Your task to perform on an android device: Open ESPN.com Image 0: 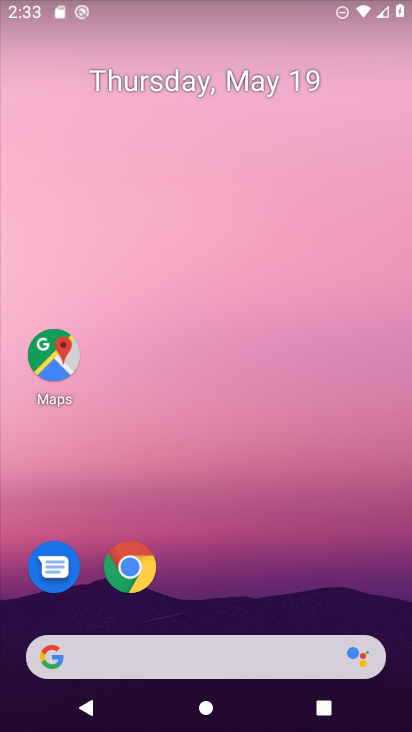
Step 0: click (279, 651)
Your task to perform on an android device: Open ESPN.com Image 1: 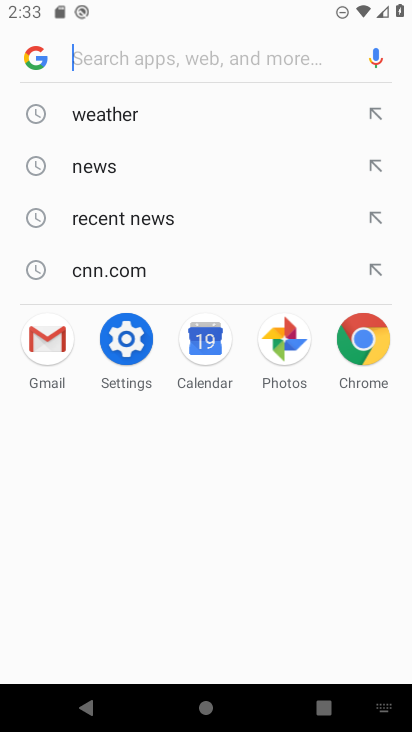
Step 1: type "espn.com"
Your task to perform on an android device: Open ESPN.com Image 2: 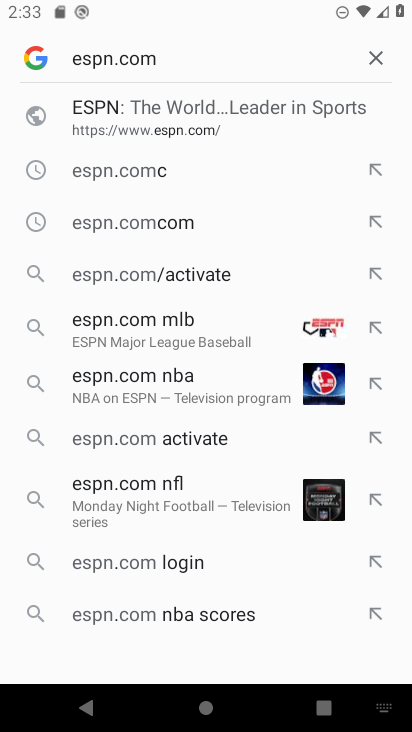
Step 2: click (104, 115)
Your task to perform on an android device: Open ESPN.com Image 3: 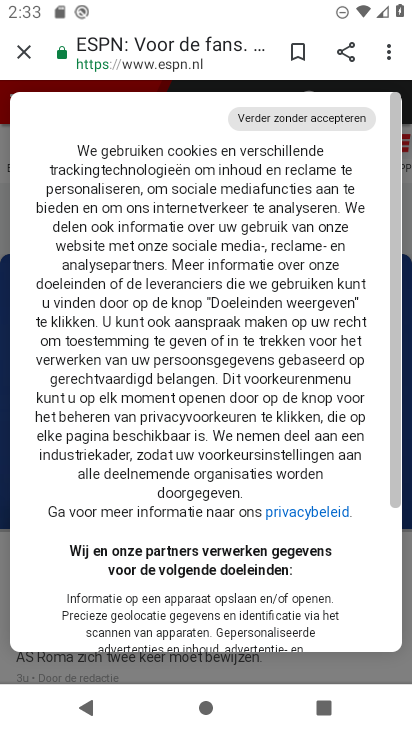
Step 3: task complete